Your task to perform on an android device: Go to Google Image 0: 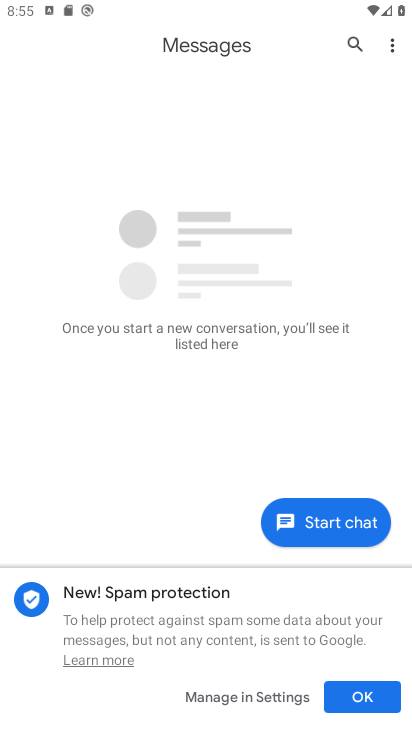
Step 0: press home button
Your task to perform on an android device: Go to Google Image 1: 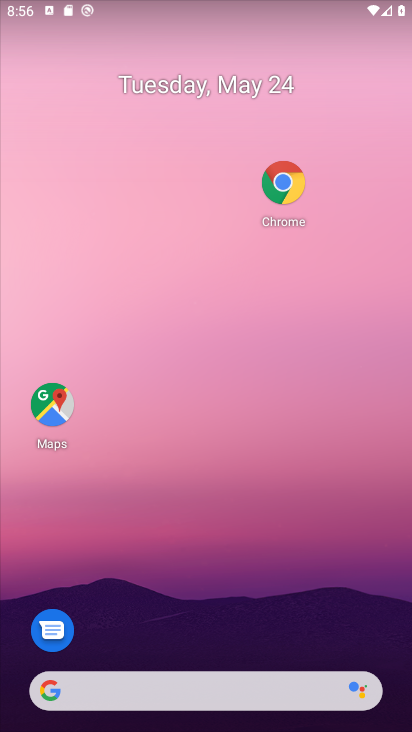
Step 1: drag from (208, 717) to (246, 87)
Your task to perform on an android device: Go to Google Image 2: 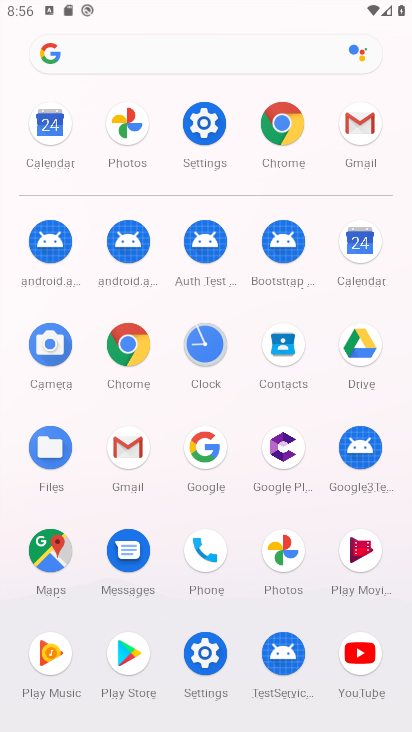
Step 2: click (50, 58)
Your task to perform on an android device: Go to Google Image 3: 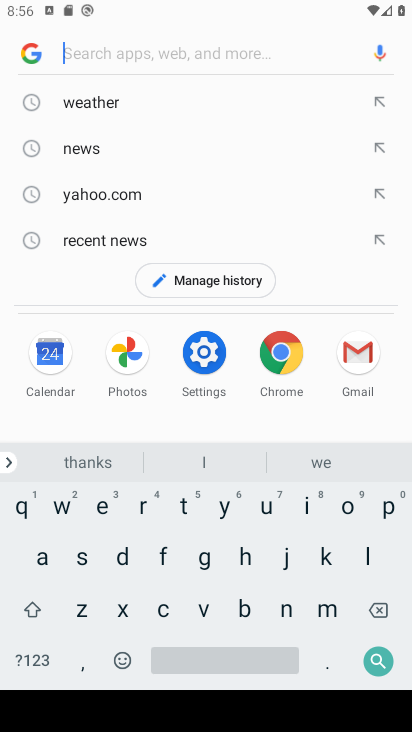
Step 3: click (33, 52)
Your task to perform on an android device: Go to Google Image 4: 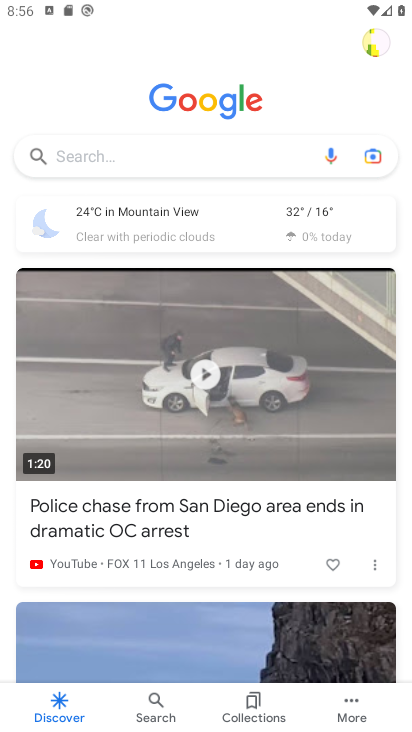
Step 4: task complete